Your task to perform on an android device: open device folders in google photos Image 0: 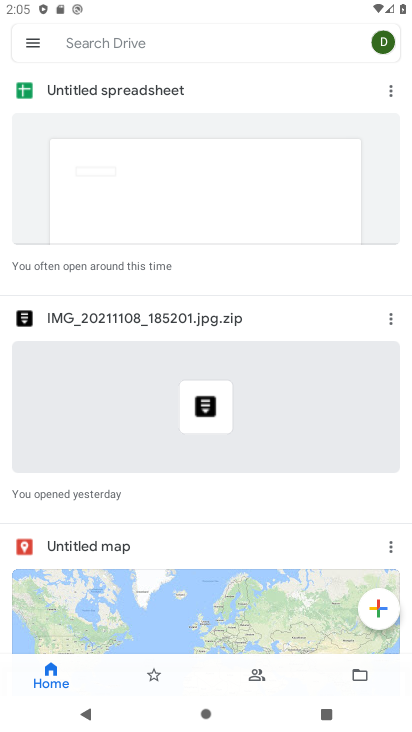
Step 0: press home button
Your task to perform on an android device: open device folders in google photos Image 1: 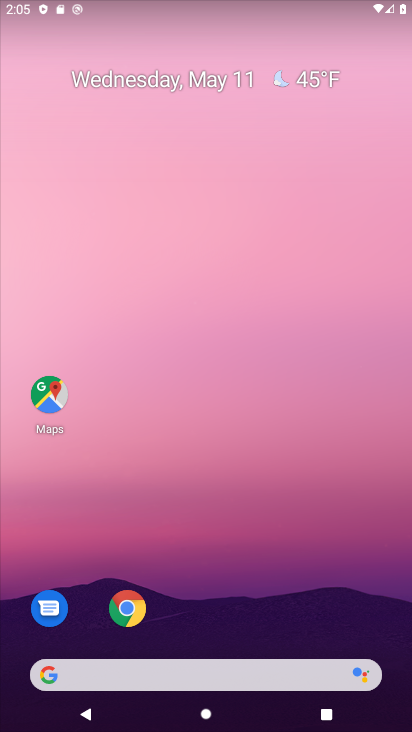
Step 1: drag from (216, 621) to (238, 139)
Your task to perform on an android device: open device folders in google photos Image 2: 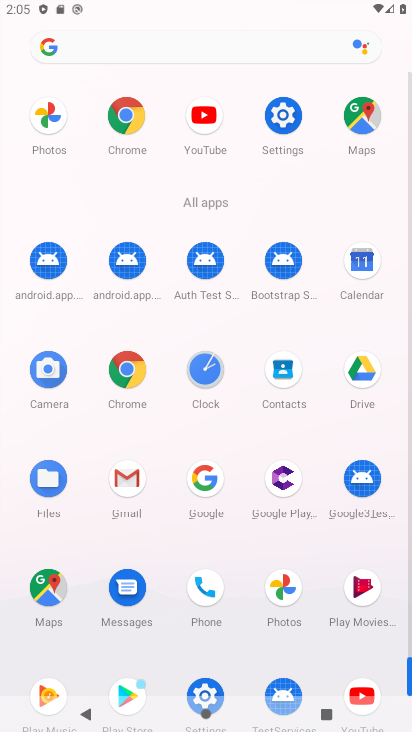
Step 2: click (285, 589)
Your task to perform on an android device: open device folders in google photos Image 3: 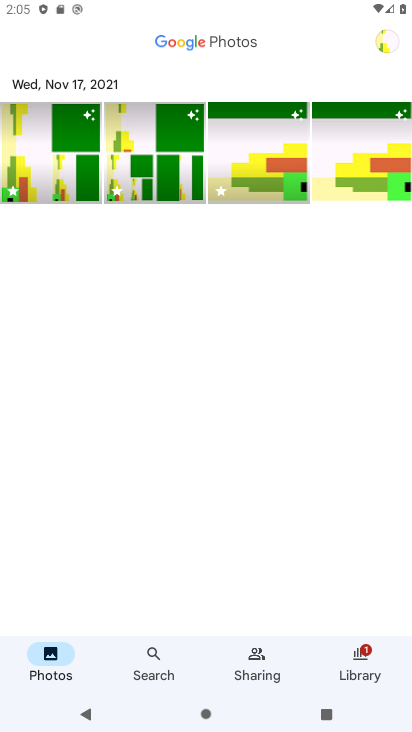
Step 3: click (388, 41)
Your task to perform on an android device: open device folders in google photos Image 4: 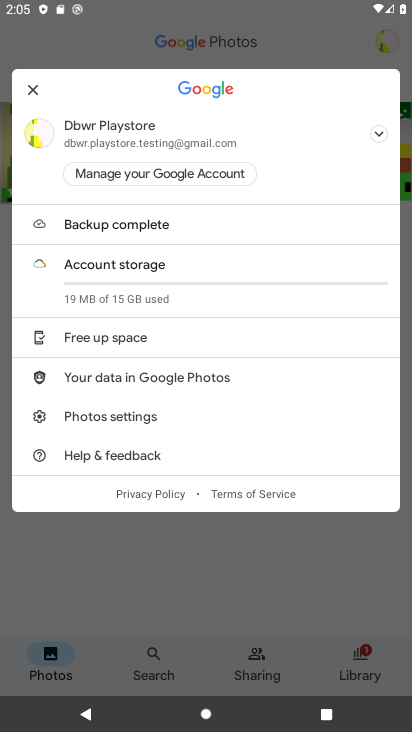
Step 4: task complete